Your task to perform on an android device: Show me popular videos on Youtube Image 0: 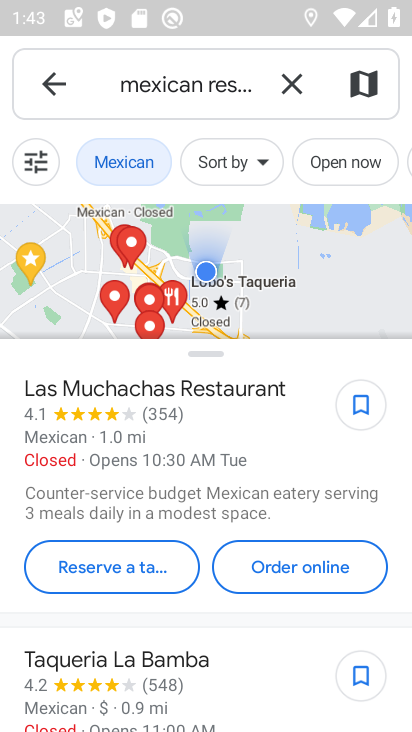
Step 0: press home button
Your task to perform on an android device: Show me popular videos on Youtube Image 1: 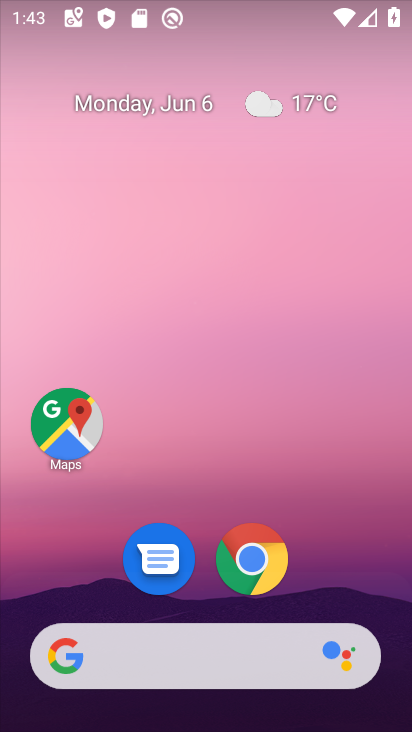
Step 1: drag from (79, 623) to (172, 269)
Your task to perform on an android device: Show me popular videos on Youtube Image 2: 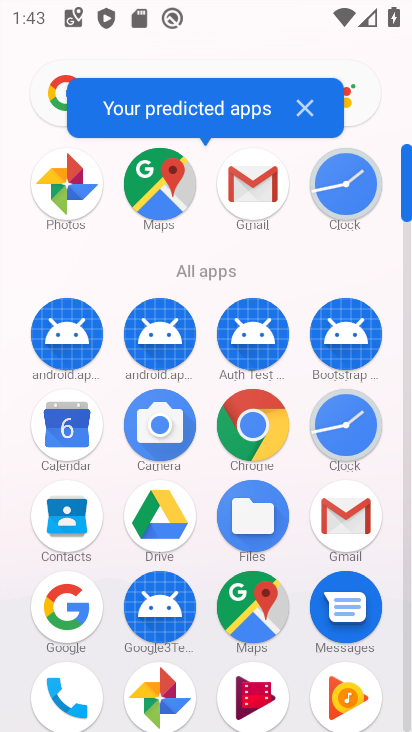
Step 2: drag from (219, 619) to (280, 278)
Your task to perform on an android device: Show me popular videos on Youtube Image 3: 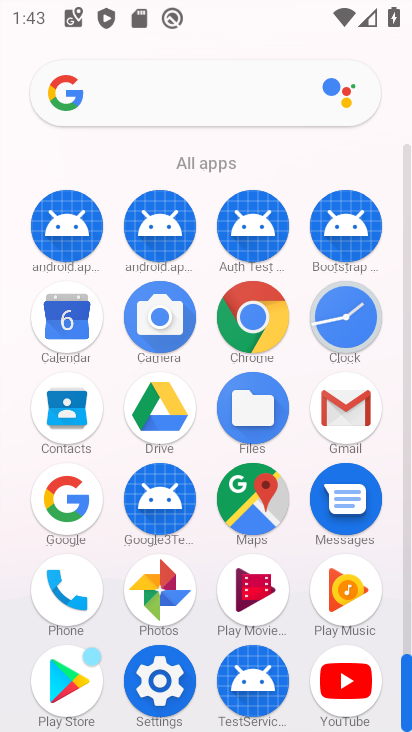
Step 3: click (357, 675)
Your task to perform on an android device: Show me popular videos on Youtube Image 4: 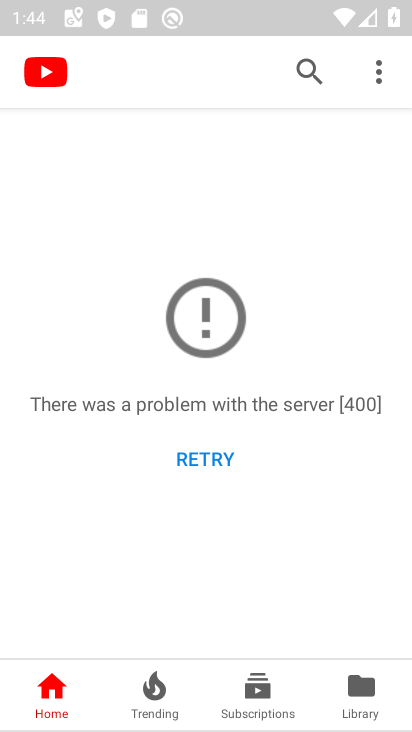
Step 4: click (369, 722)
Your task to perform on an android device: Show me popular videos on Youtube Image 5: 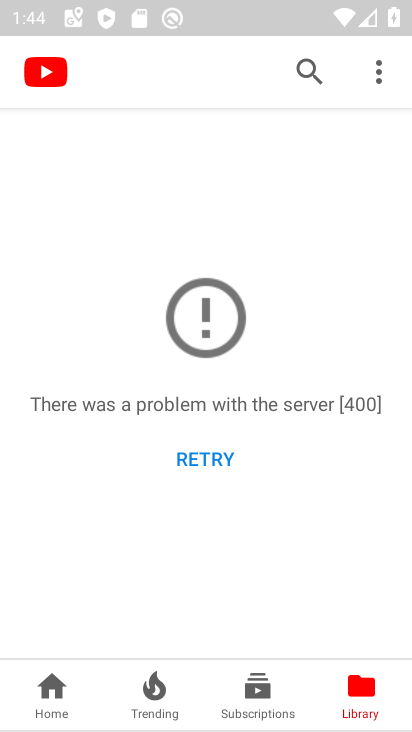
Step 5: task complete